Your task to perform on an android device: open a new tab in the chrome app Image 0: 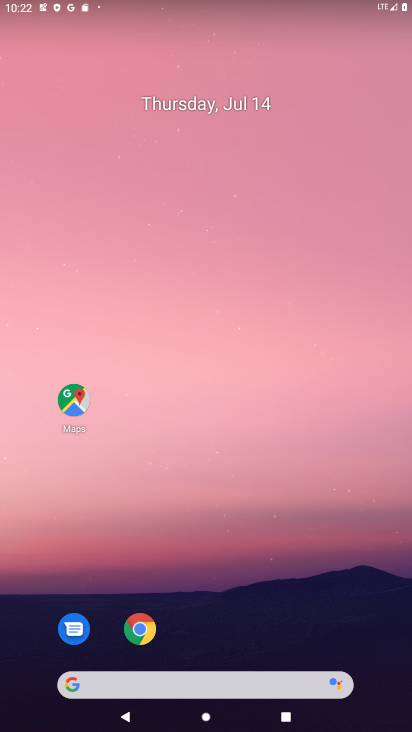
Step 0: click (132, 632)
Your task to perform on an android device: open a new tab in the chrome app Image 1: 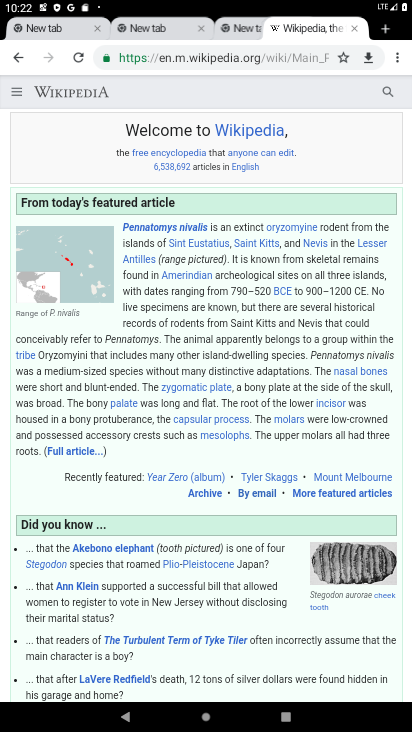
Step 1: click (358, 26)
Your task to perform on an android device: open a new tab in the chrome app Image 2: 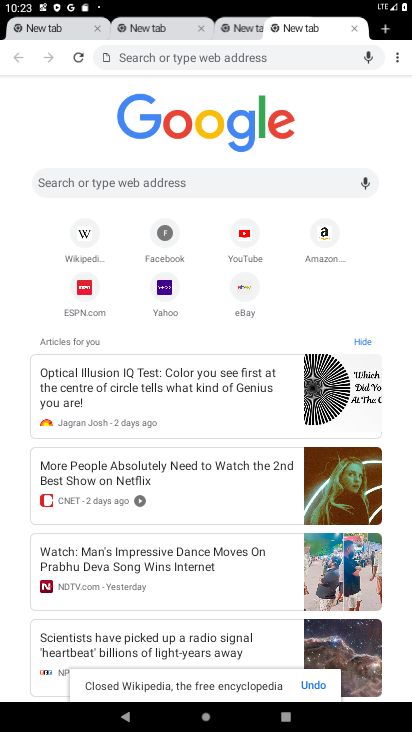
Step 2: click (355, 23)
Your task to perform on an android device: open a new tab in the chrome app Image 3: 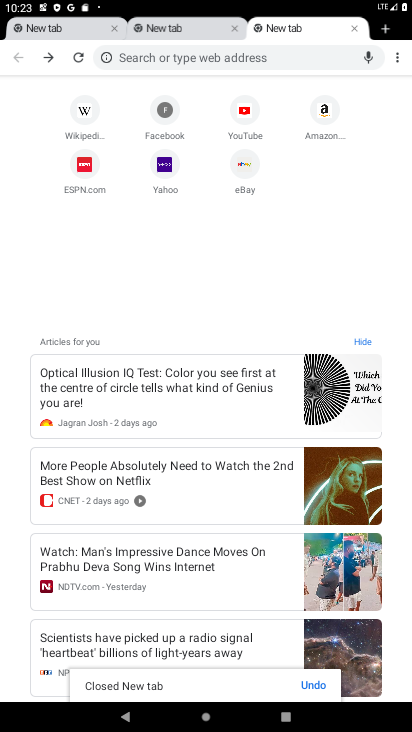
Step 3: click (351, 32)
Your task to perform on an android device: open a new tab in the chrome app Image 4: 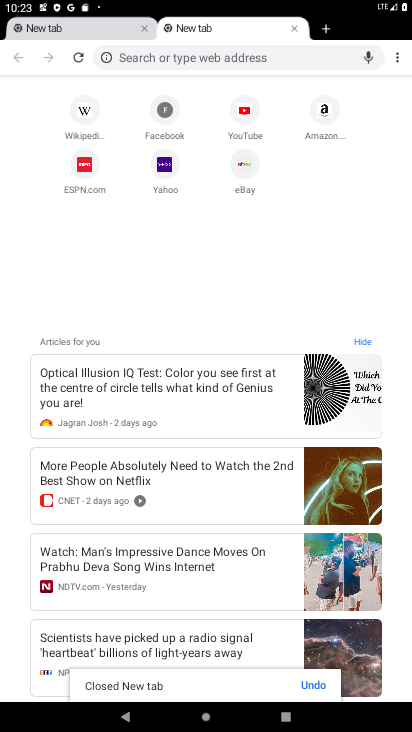
Step 4: click (326, 32)
Your task to perform on an android device: open a new tab in the chrome app Image 5: 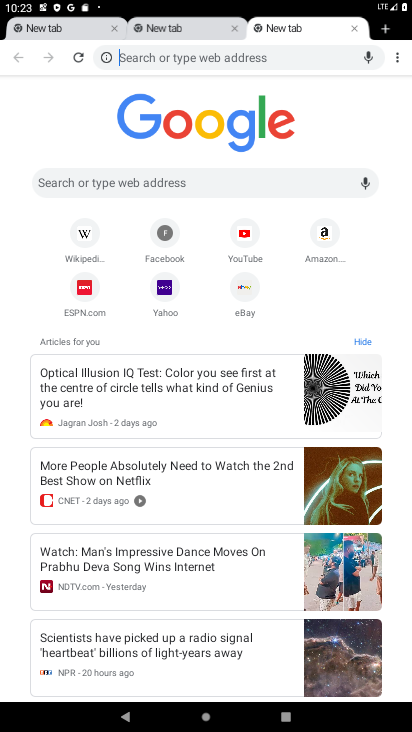
Step 5: task complete